Your task to perform on an android device: allow cookies in the chrome app Image 0: 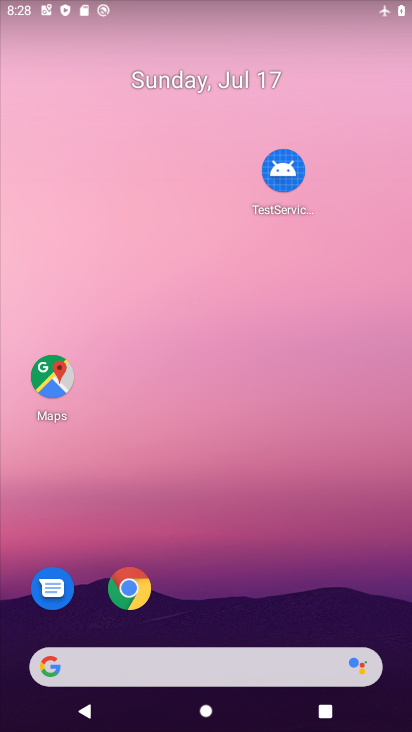
Step 0: drag from (231, 662) to (244, 214)
Your task to perform on an android device: allow cookies in the chrome app Image 1: 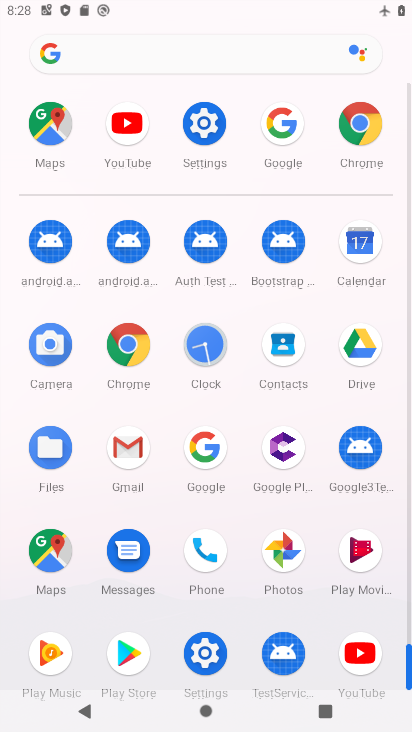
Step 1: click (366, 148)
Your task to perform on an android device: allow cookies in the chrome app Image 2: 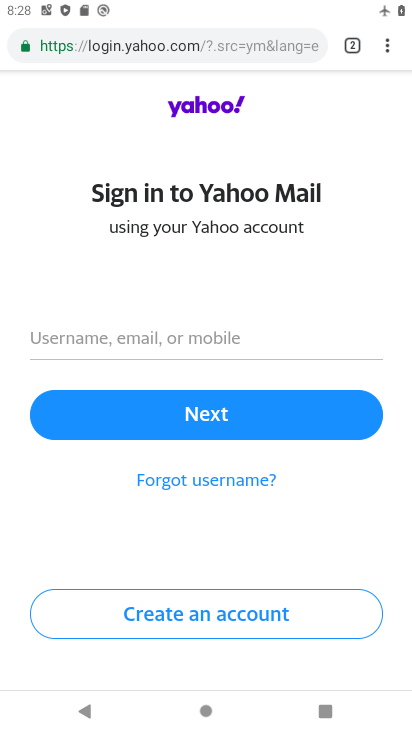
Step 2: click (386, 54)
Your task to perform on an android device: allow cookies in the chrome app Image 3: 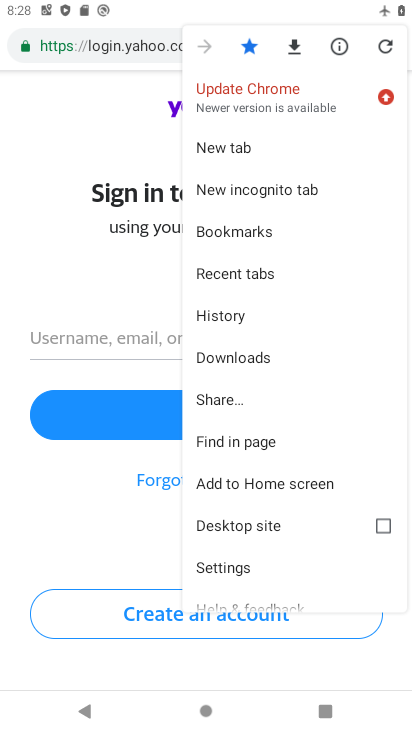
Step 3: click (233, 573)
Your task to perform on an android device: allow cookies in the chrome app Image 4: 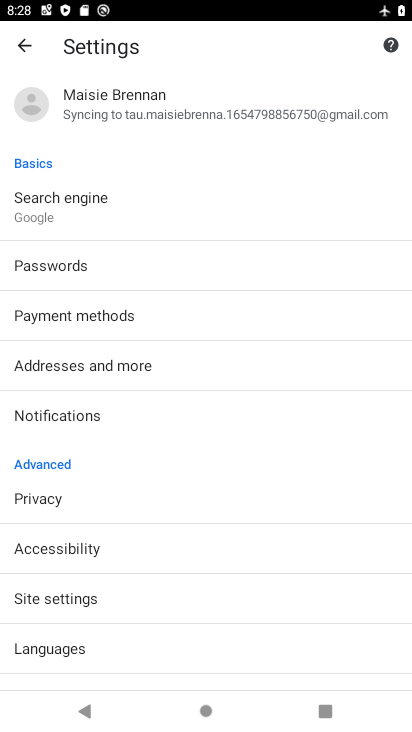
Step 4: click (80, 598)
Your task to perform on an android device: allow cookies in the chrome app Image 5: 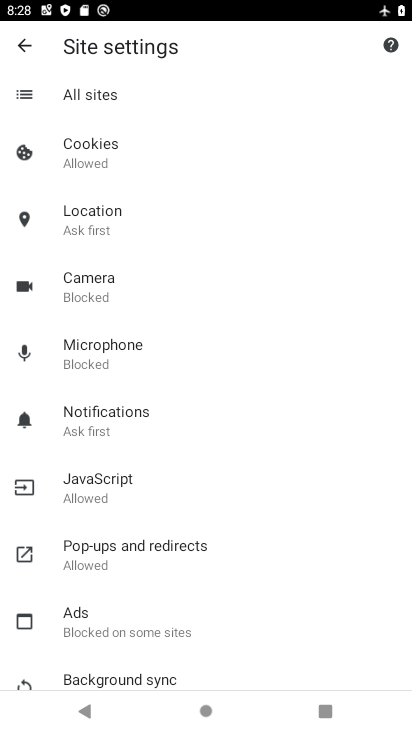
Step 5: click (112, 169)
Your task to perform on an android device: allow cookies in the chrome app Image 6: 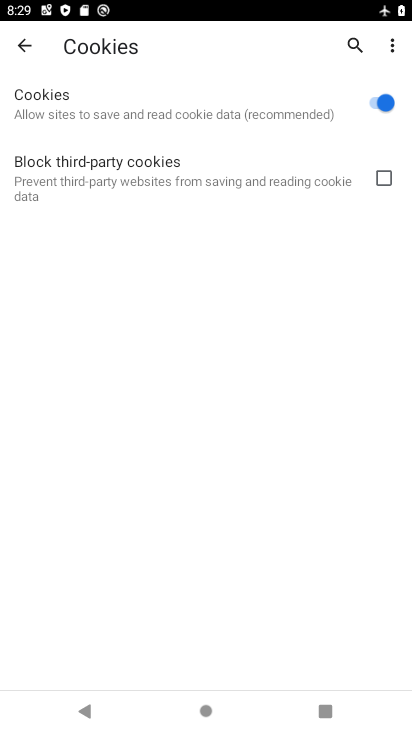
Step 6: task complete